Your task to perform on an android device: choose inbox layout in the gmail app Image 0: 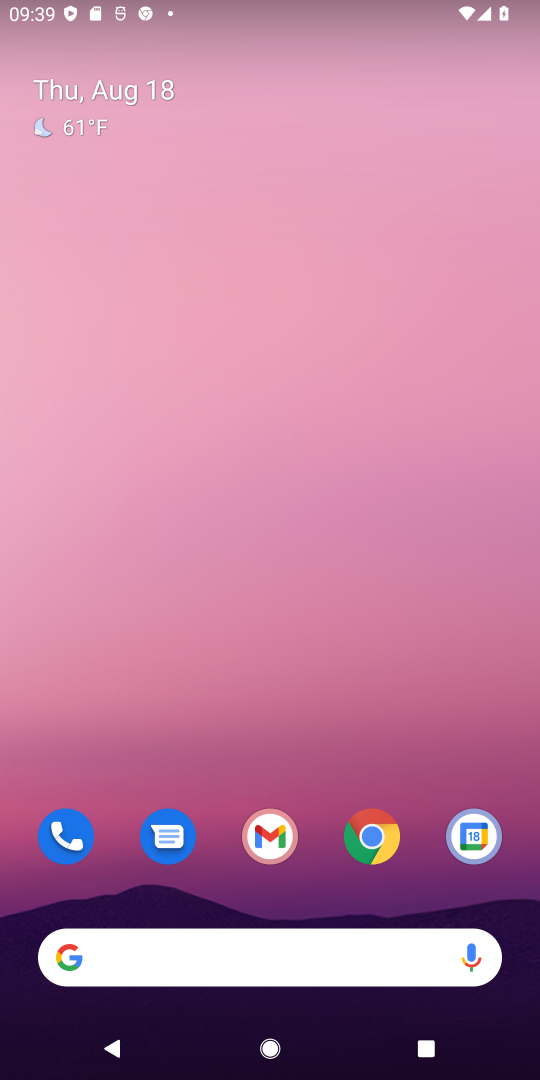
Step 0: drag from (434, 693) to (426, 6)
Your task to perform on an android device: choose inbox layout in the gmail app Image 1: 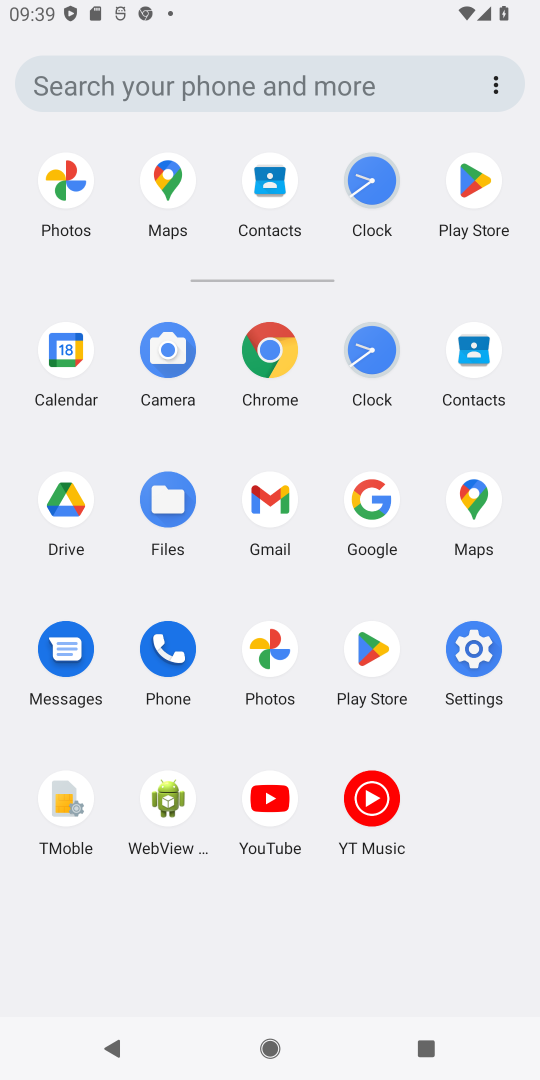
Step 1: click (285, 498)
Your task to perform on an android device: choose inbox layout in the gmail app Image 2: 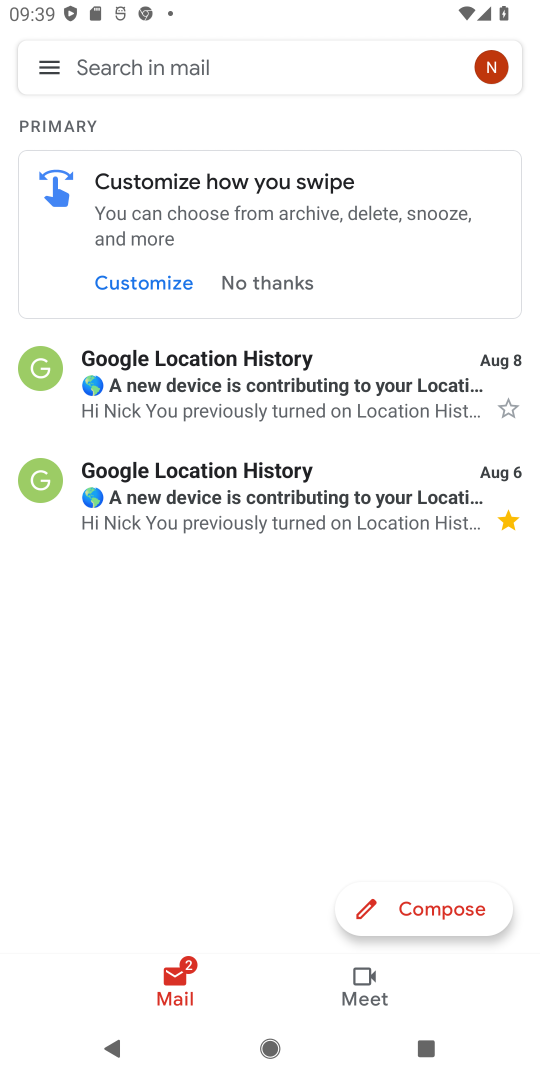
Step 2: click (45, 63)
Your task to perform on an android device: choose inbox layout in the gmail app Image 3: 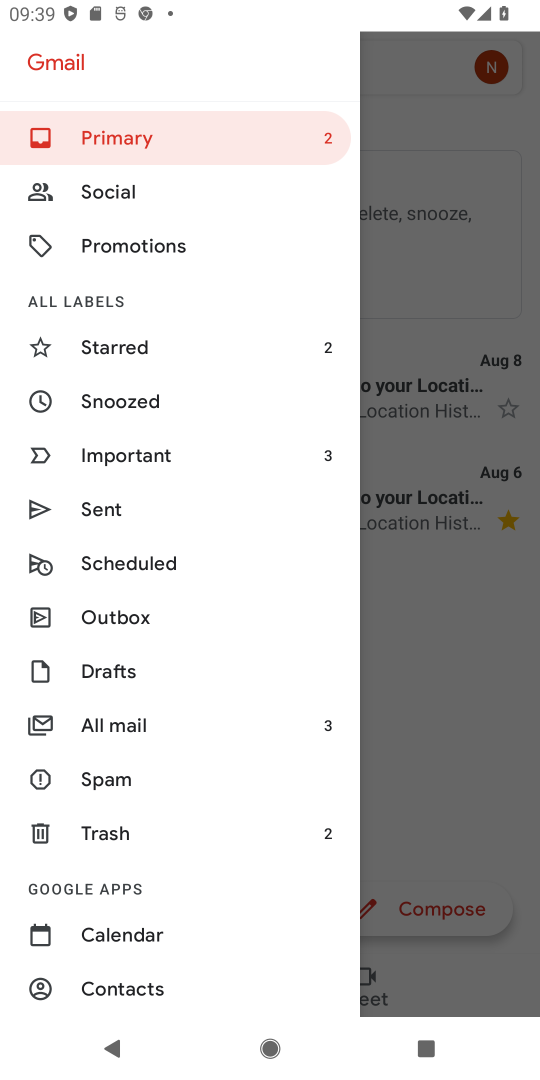
Step 3: drag from (126, 966) to (183, 336)
Your task to perform on an android device: choose inbox layout in the gmail app Image 4: 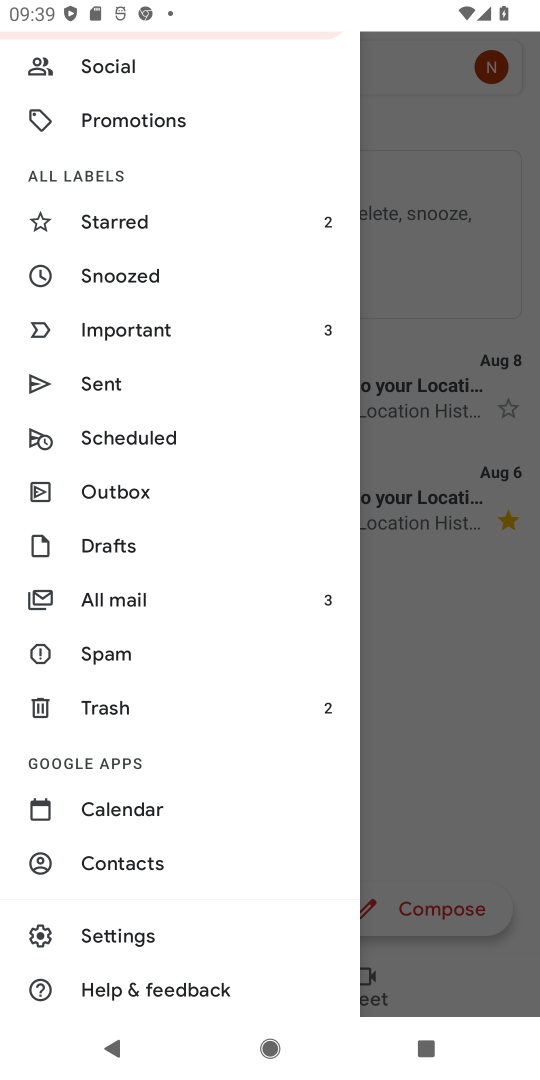
Step 4: click (128, 945)
Your task to perform on an android device: choose inbox layout in the gmail app Image 5: 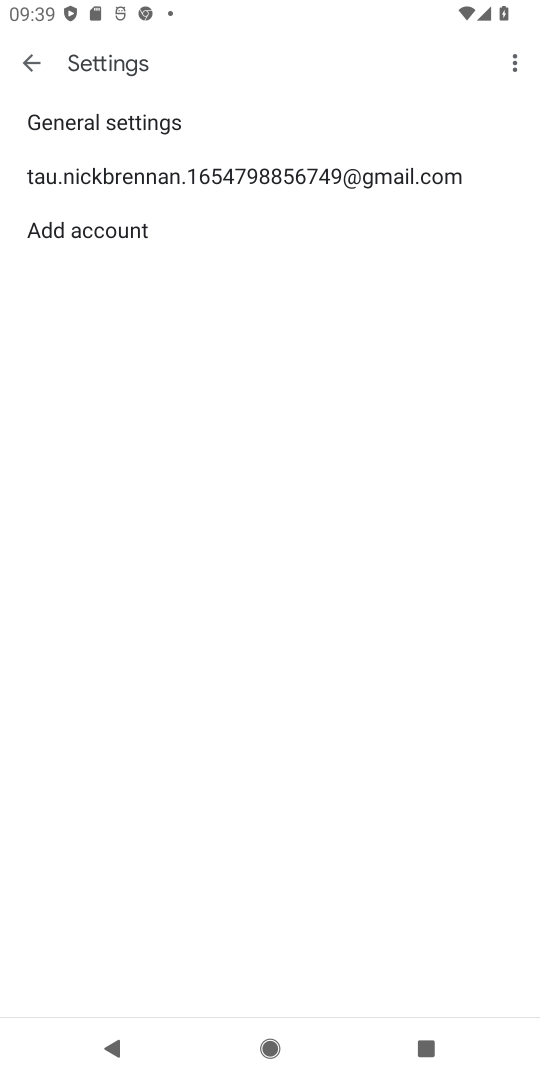
Step 5: click (259, 188)
Your task to perform on an android device: choose inbox layout in the gmail app Image 6: 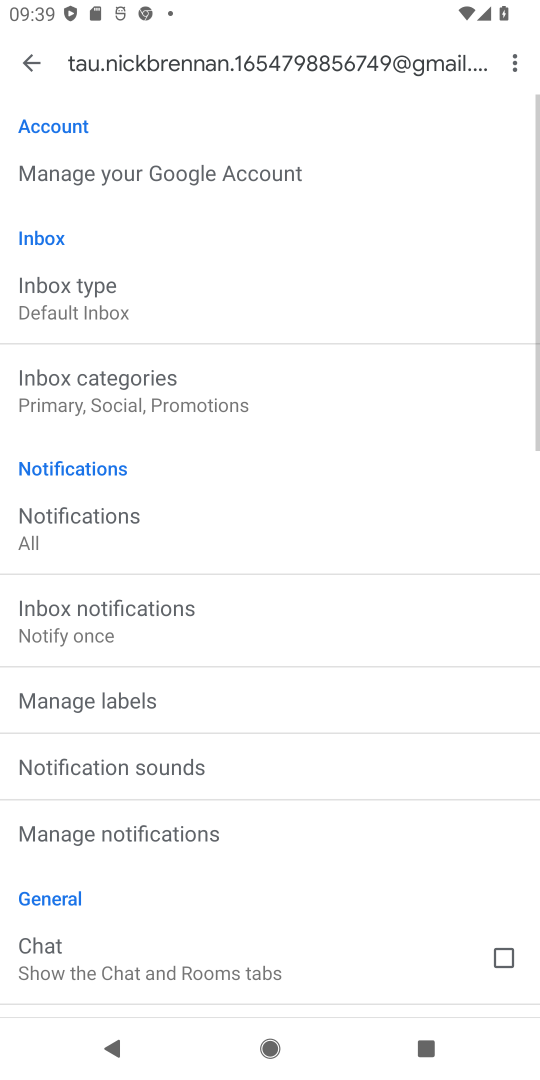
Step 6: click (54, 306)
Your task to perform on an android device: choose inbox layout in the gmail app Image 7: 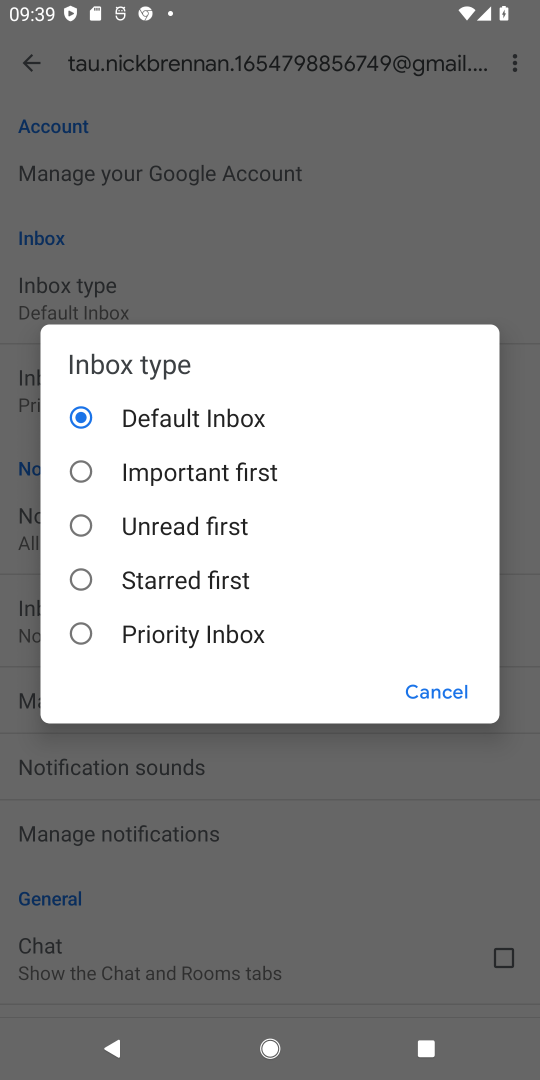
Step 7: task complete